Your task to perform on an android device: Go to location settings Image 0: 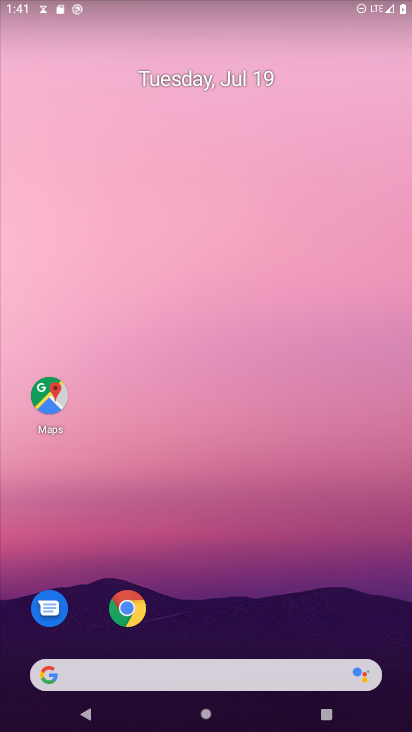
Step 0: drag from (302, 601) to (308, 6)
Your task to perform on an android device: Go to location settings Image 1: 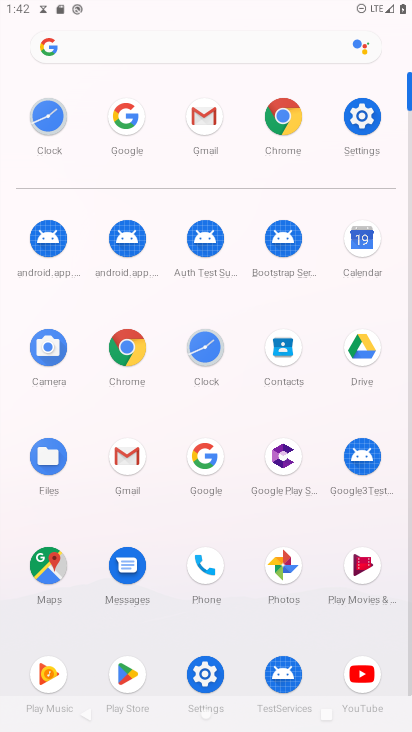
Step 1: click (356, 126)
Your task to perform on an android device: Go to location settings Image 2: 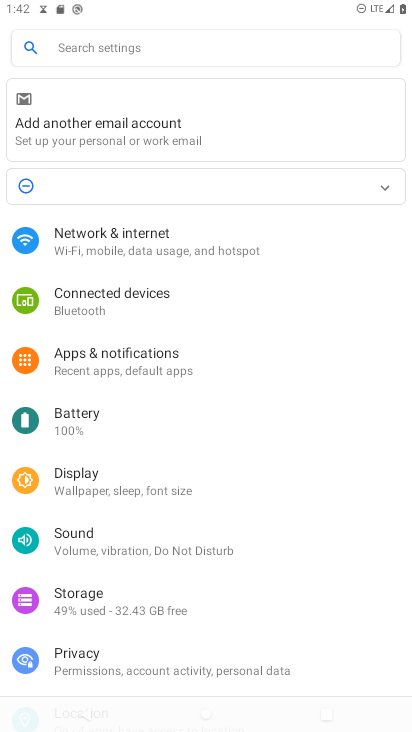
Step 2: drag from (112, 579) to (115, 284)
Your task to perform on an android device: Go to location settings Image 3: 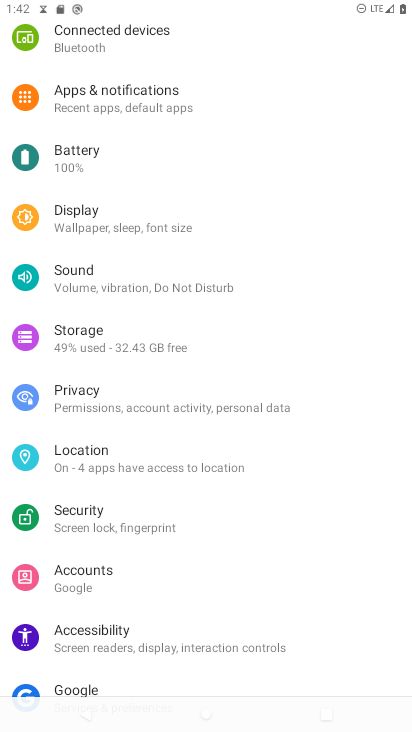
Step 3: click (119, 455)
Your task to perform on an android device: Go to location settings Image 4: 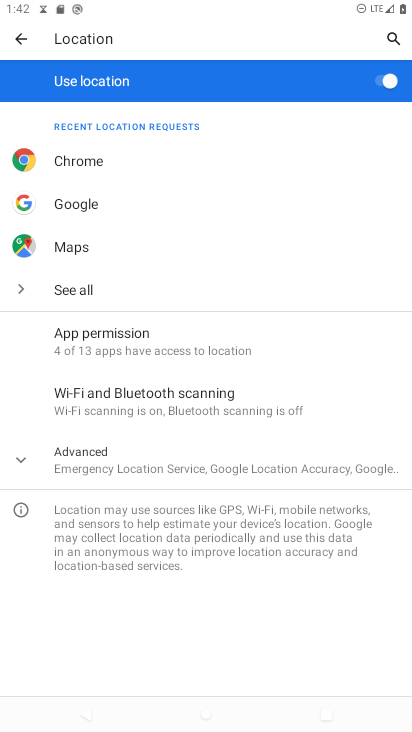
Step 4: press home button
Your task to perform on an android device: Go to location settings Image 5: 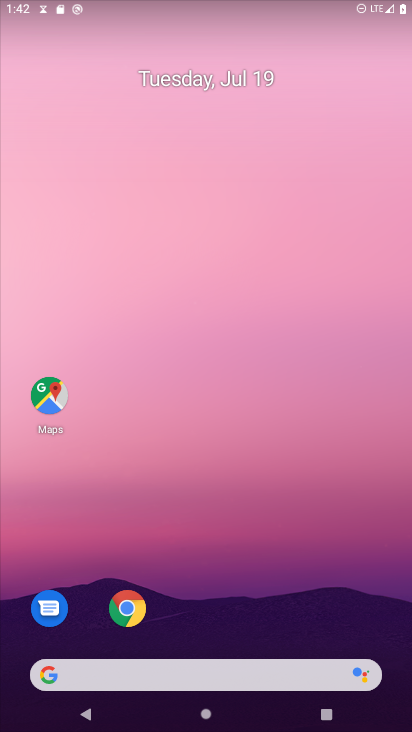
Step 5: drag from (268, 689) to (371, 0)
Your task to perform on an android device: Go to location settings Image 6: 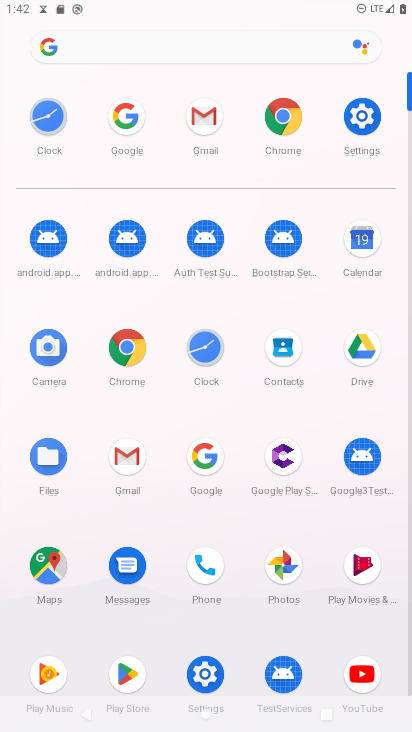
Step 6: click (371, 111)
Your task to perform on an android device: Go to location settings Image 7: 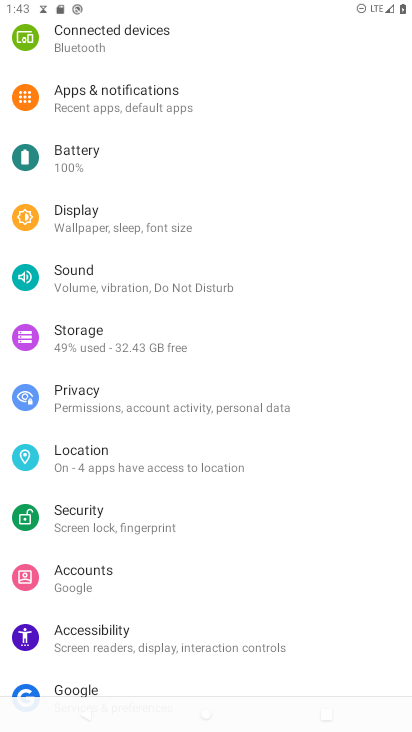
Step 7: click (80, 448)
Your task to perform on an android device: Go to location settings Image 8: 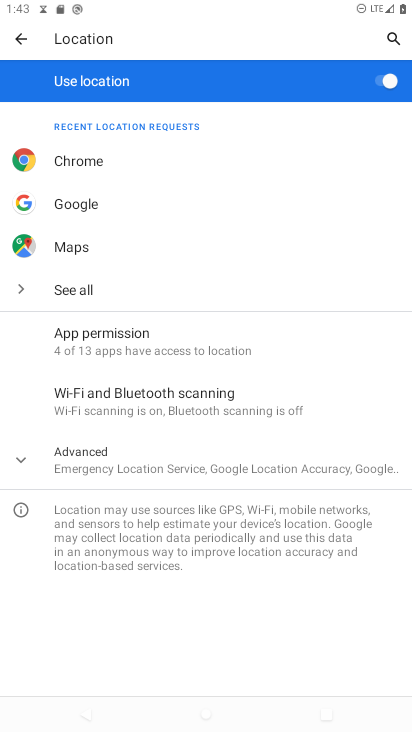
Step 8: task complete